Your task to perform on an android device: refresh tabs in the chrome app Image 0: 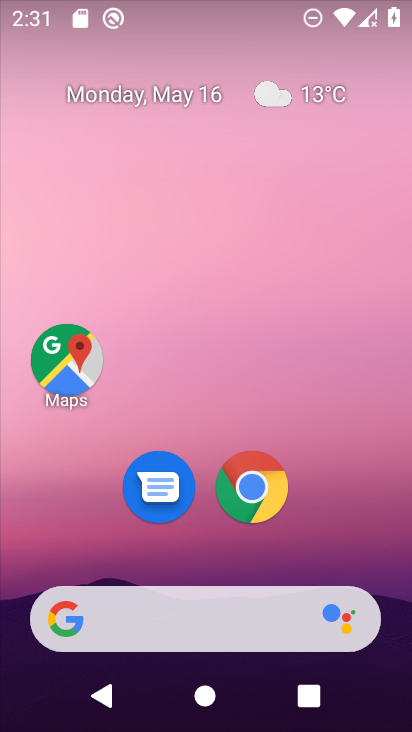
Step 0: click (261, 495)
Your task to perform on an android device: refresh tabs in the chrome app Image 1: 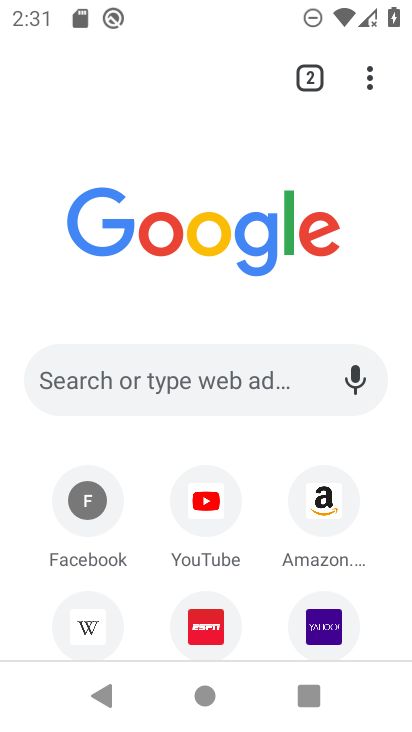
Step 1: click (369, 77)
Your task to perform on an android device: refresh tabs in the chrome app Image 2: 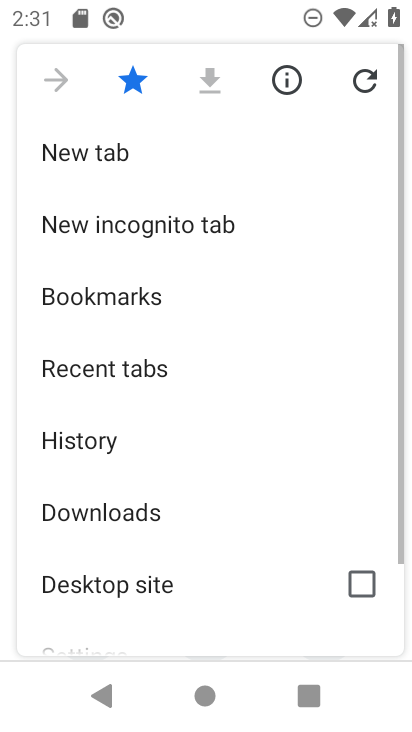
Step 2: click (368, 69)
Your task to perform on an android device: refresh tabs in the chrome app Image 3: 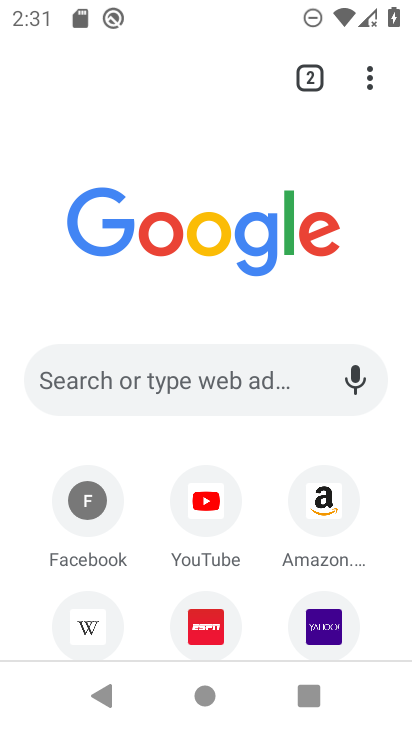
Step 3: click (370, 80)
Your task to perform on an android device: refresh tabs in the chrome app Image 4: 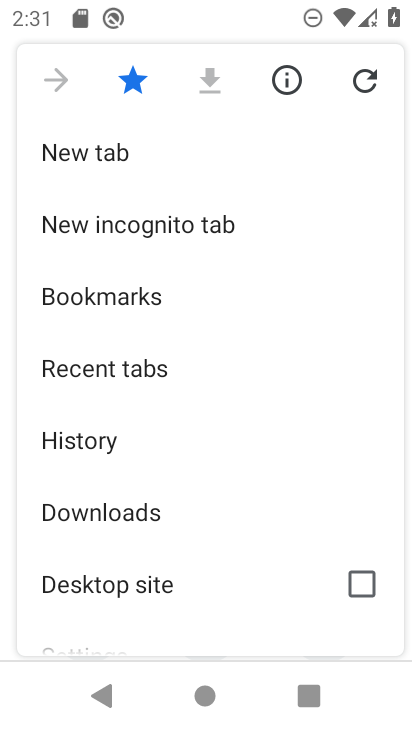
Step 4: task complete